Your task to perform on an android device: see sites visited before in the chrome app Image 0: 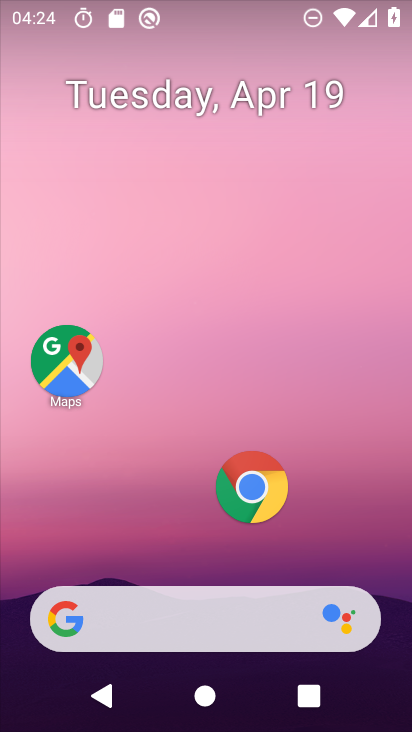
Step 0: click (270, 498)
Your task to perform on an android device: see sites visited before in the chrome app Image 1: 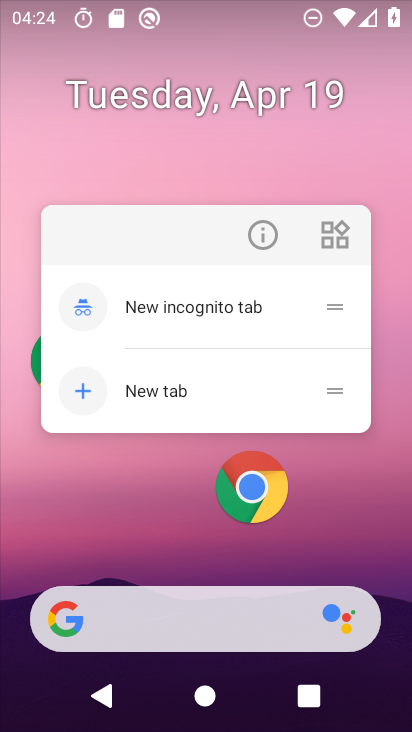
Step 1: click (267, 484)
Your task to perform on an android device: see sites visited before in the chrome app Image 2: 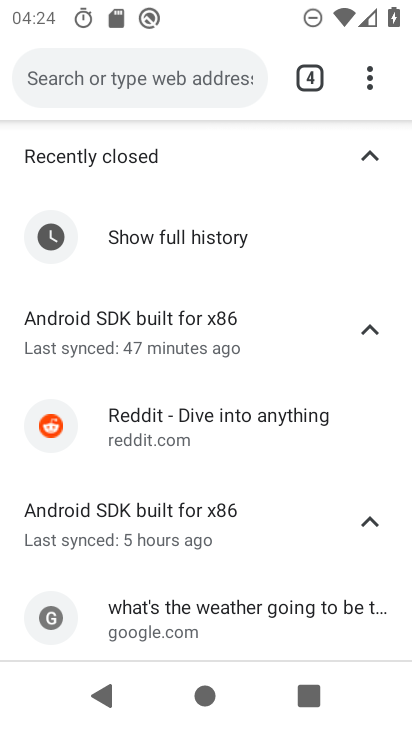
Step 2: task complete